Your task to perform on an android device: Open wifi settings Image 0: 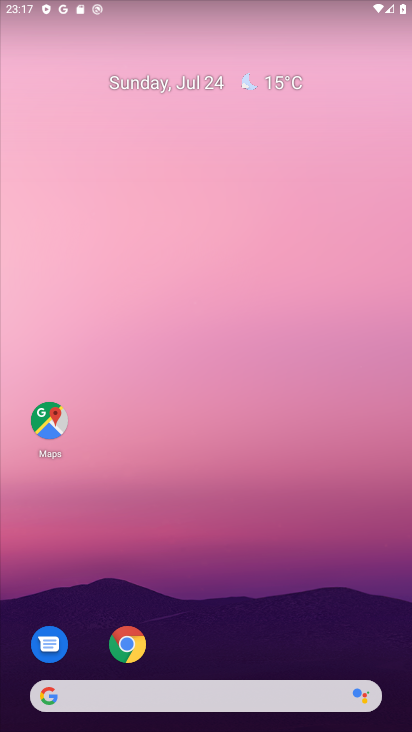
Step 0: drag from (244, 723) to (240, 68)
Your task to perform on an android device: Open wifi settings Image 1: 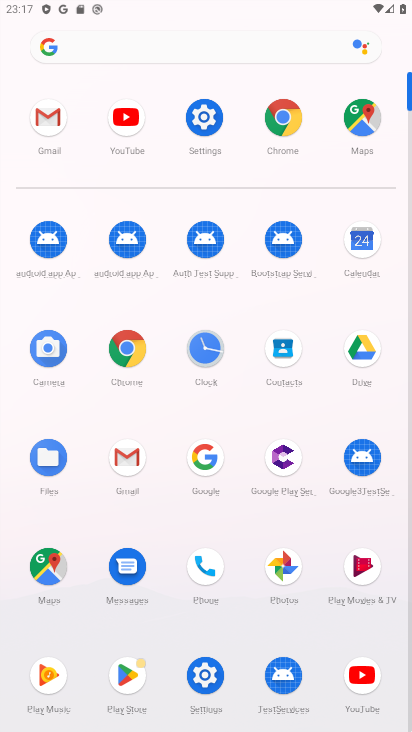
Step 1: click (206, 111)
Your task to perform on an android device: Open wifi settings Image 2: 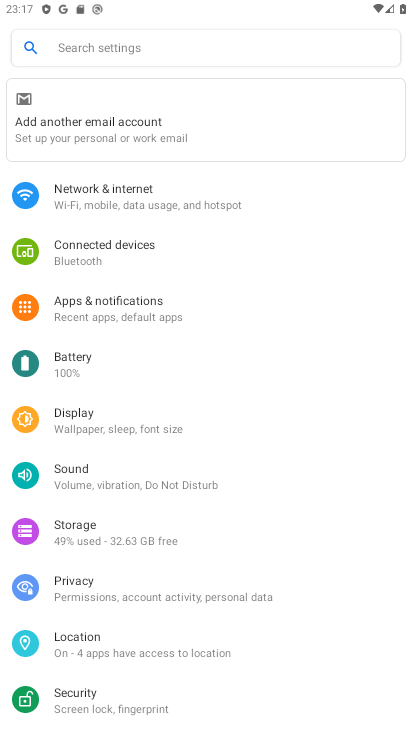
Step 2: click (75, 198)
Your task to perform on an android device: Open wifi settings Image 3: 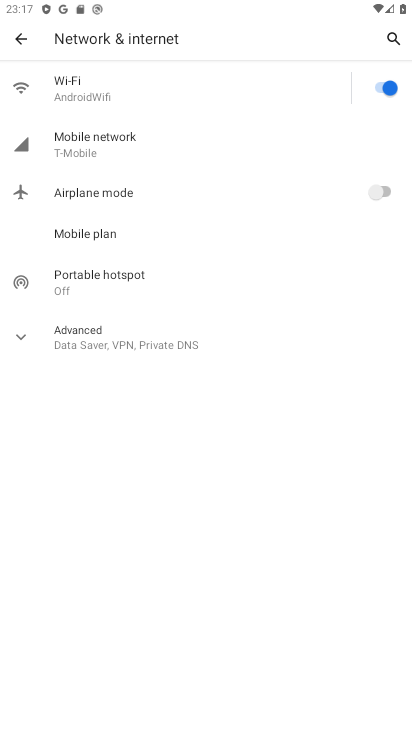
Step 3: click (70, 90)
Your task to perform on an android device: Open wifi settings Image 4: 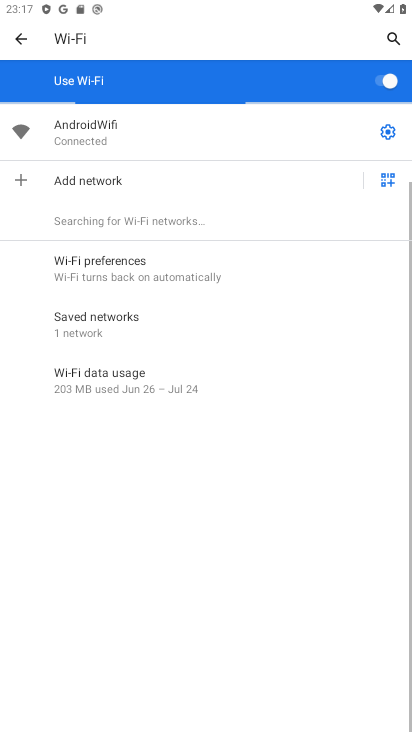
Step 4: task complete